Your task to perform on an android device: Go to Maps Image 0: 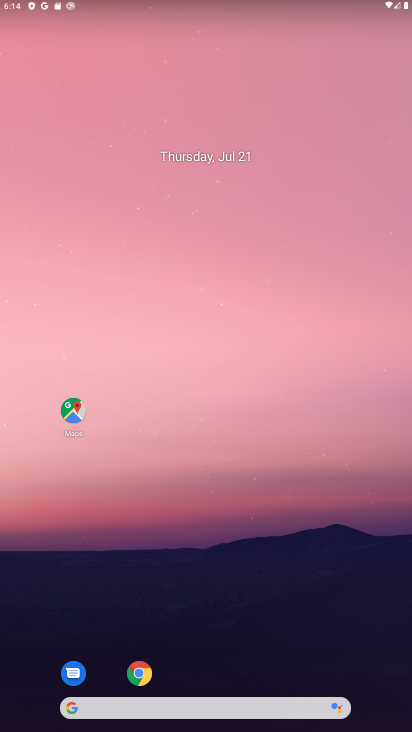
Step 0: drag from (174, 358) to (176, 262)
Your task to perform on an android device: Go to Maps Image 1: 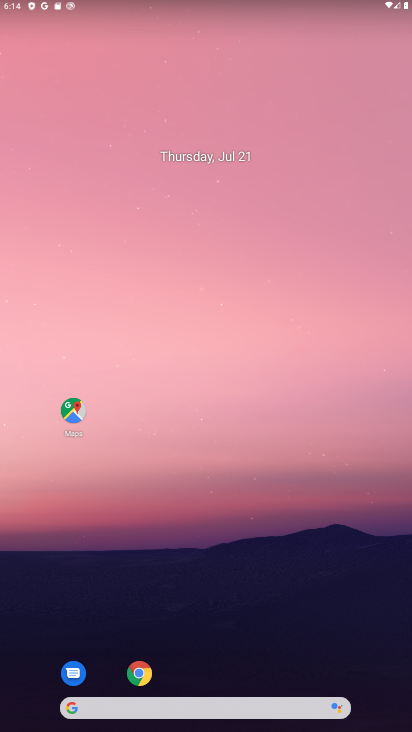
Step 1: click (79, 414)
Your task to perform on an android device: Go to Maps Image 2: 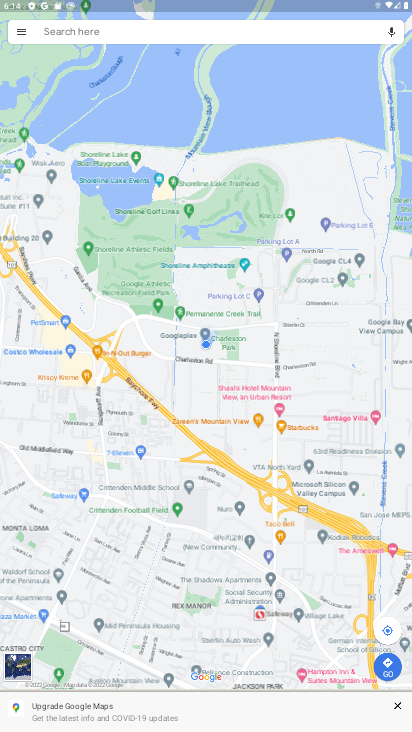
Step 2: task complete